Your task to perform on an android device: check storage Image 0: 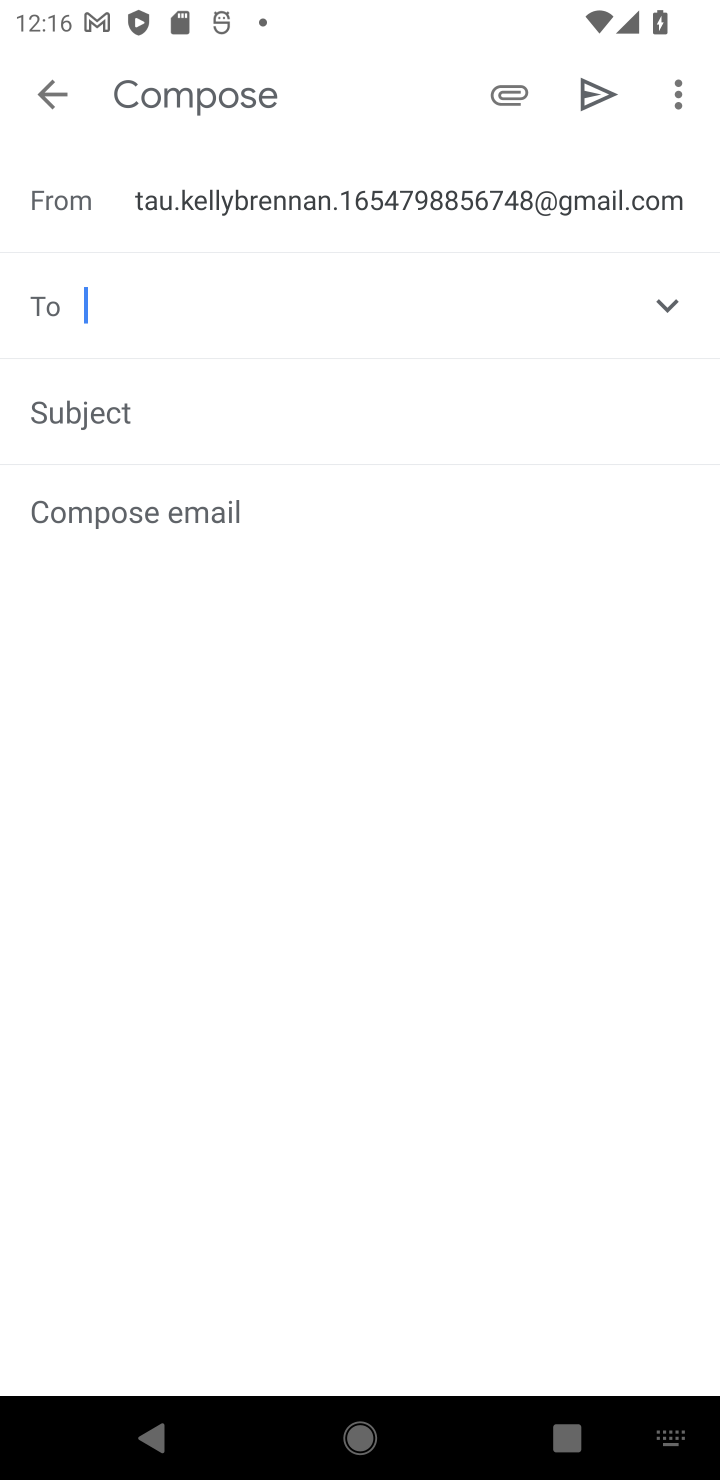
Step 0: press home button
Your task to perform on an android device: check storage Image 1: 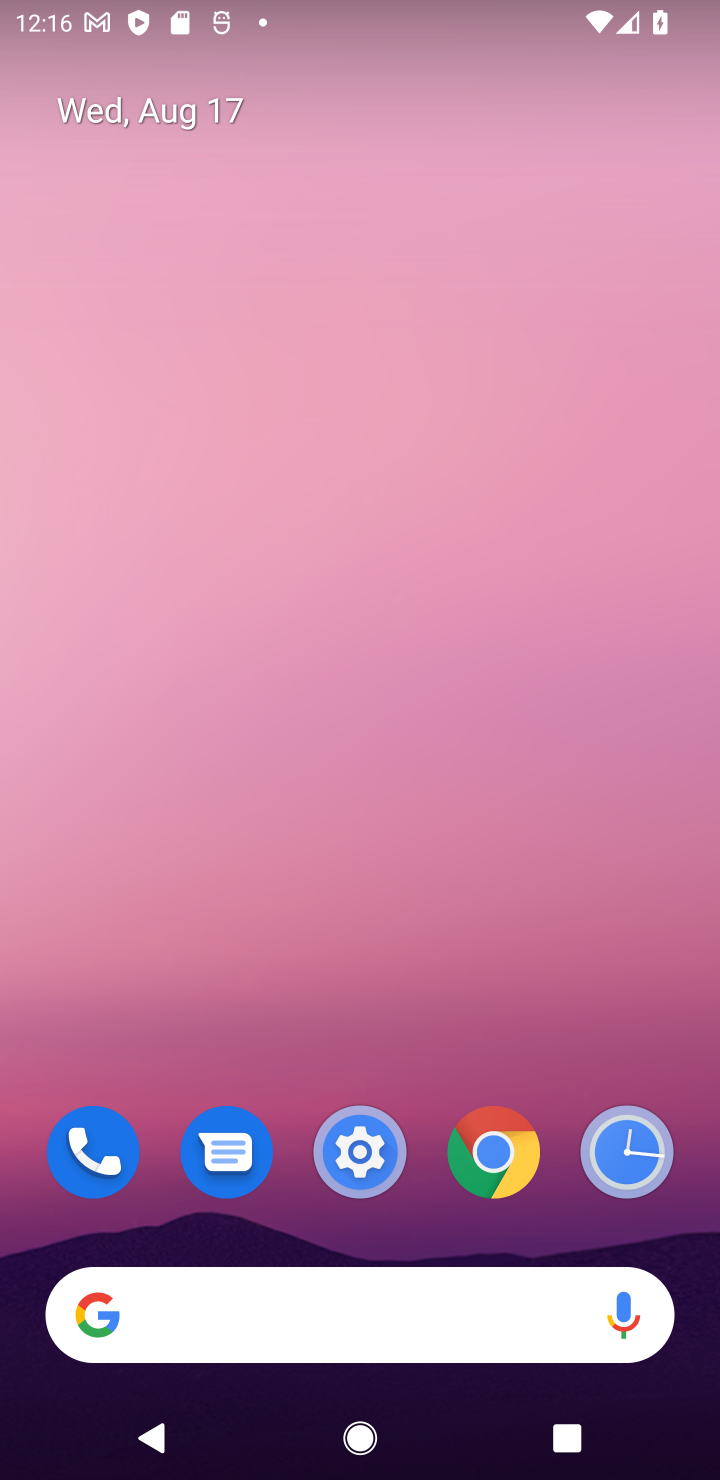
Step 1: drag from (410, 816) to (101, 30)
Your task to perform on an android device: check storage Image 2: 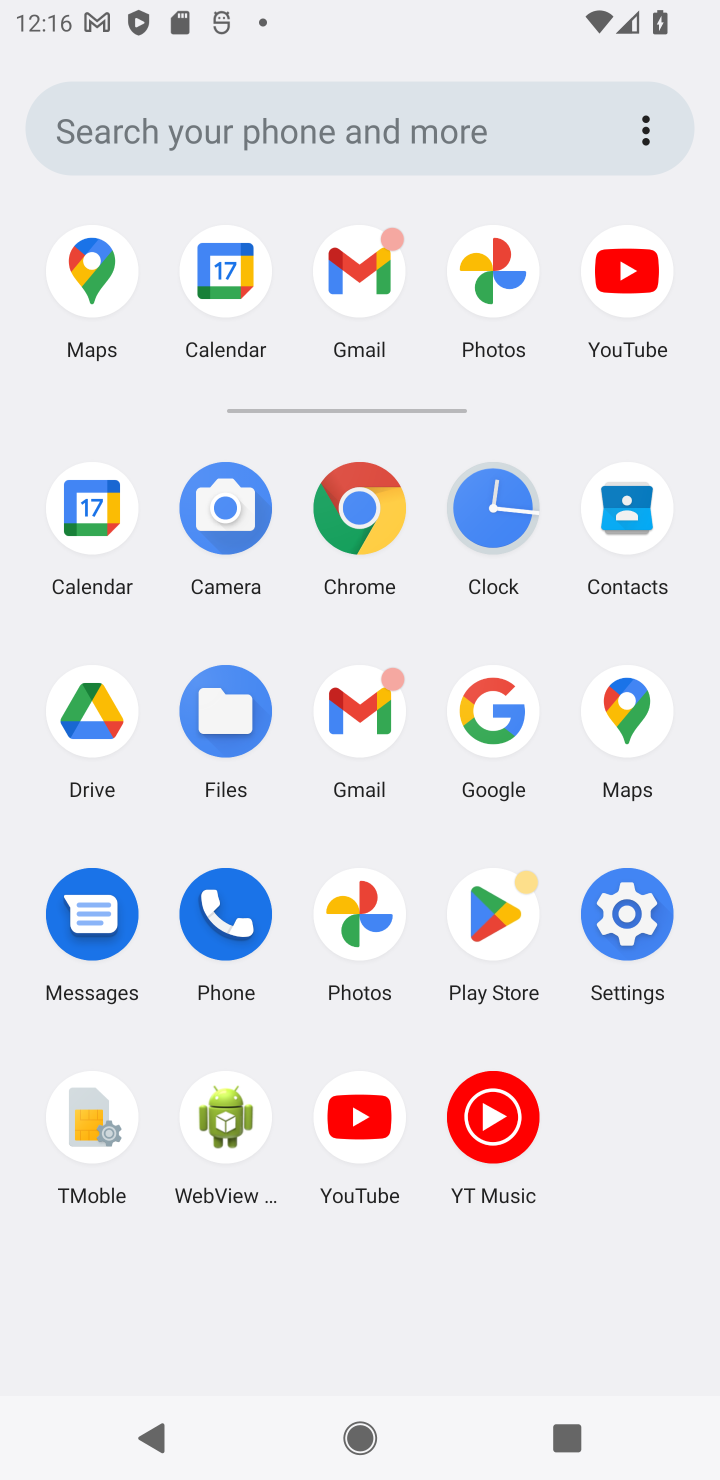
Step 2: click (637, 937)
Your task to perform on an android device: check storage Image 3: 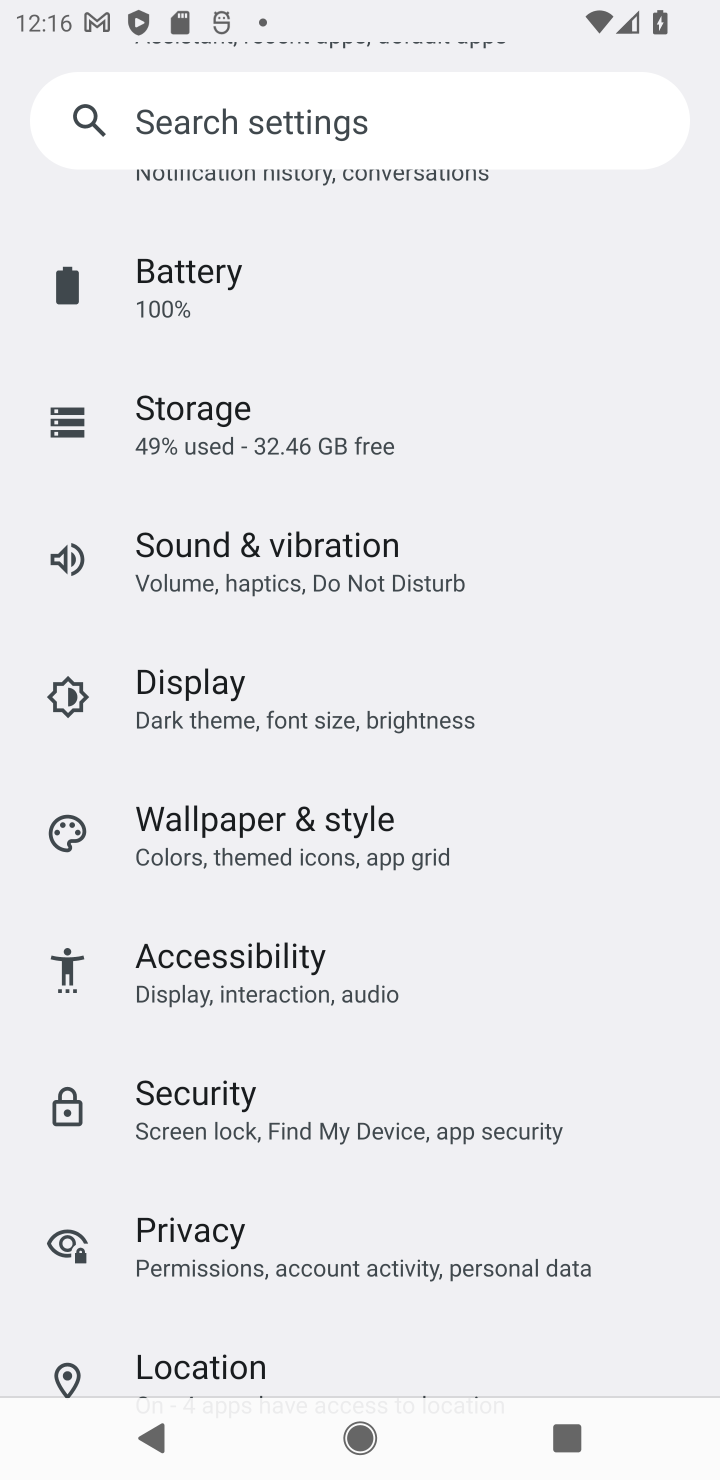
Step 3: drag from (227, 1165) to (200, 755)
Your task to perform on an android device: check storage Image 4: 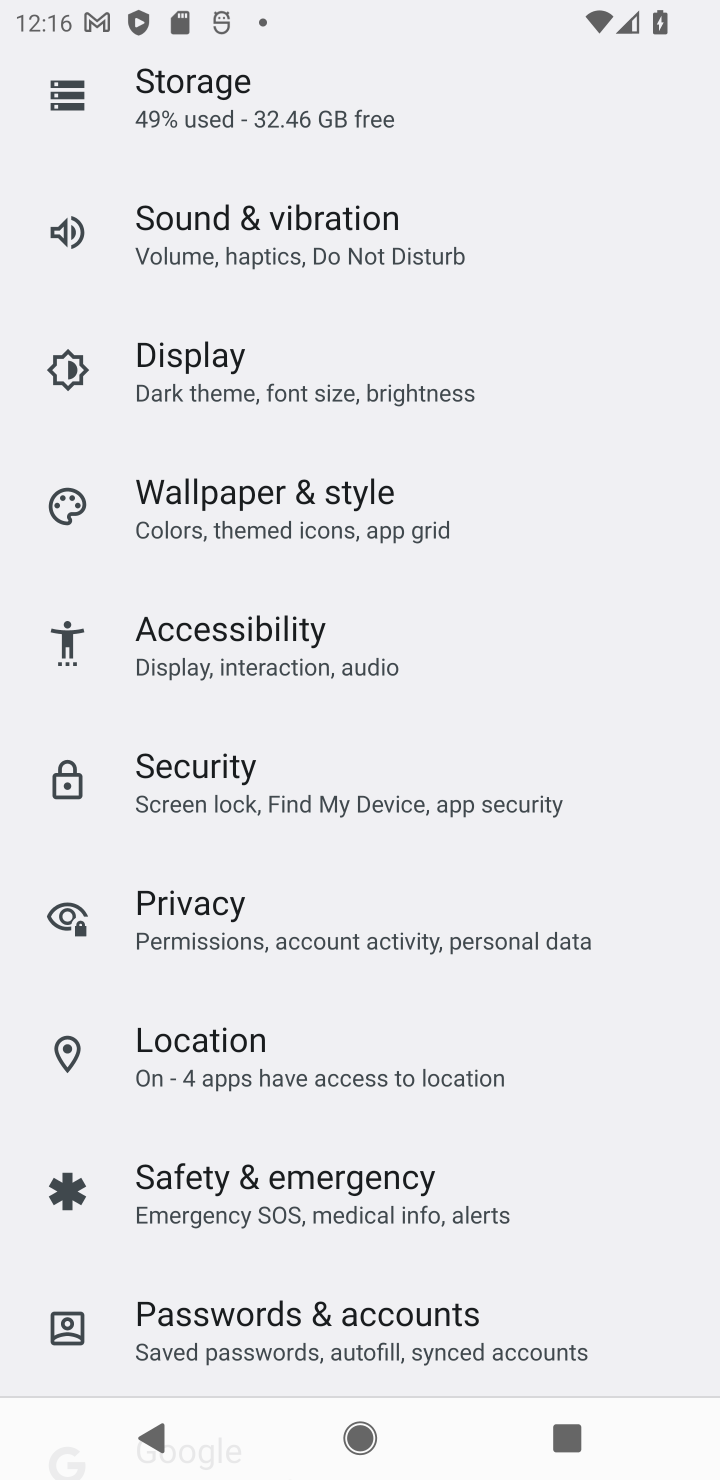
Step 4: click (205, 104)
Your task to perform on an android device: check storage Image 5: 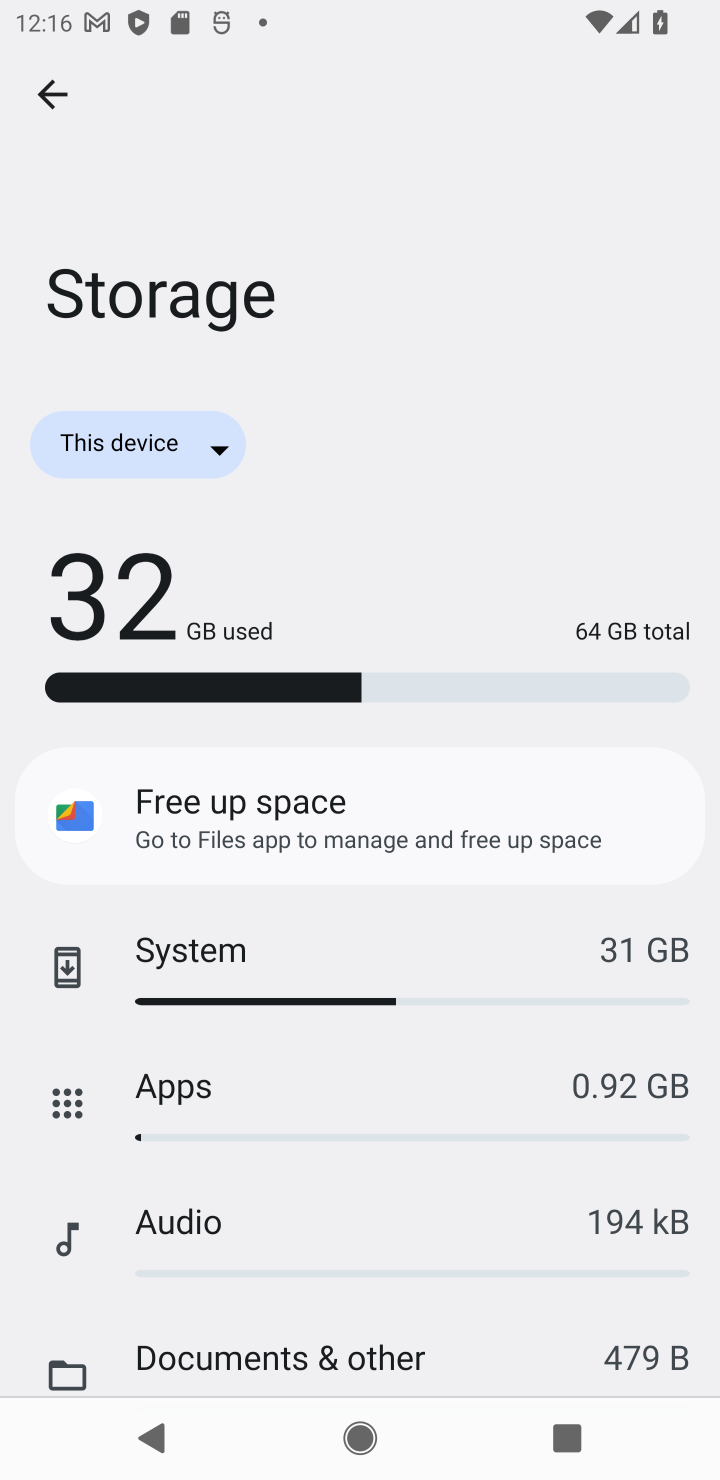
Step 5: task complete